Your task to perform on an android device: View the shopping cart on newegg.com. Add "sony triple a" to the cart on newegg.com Image 0: 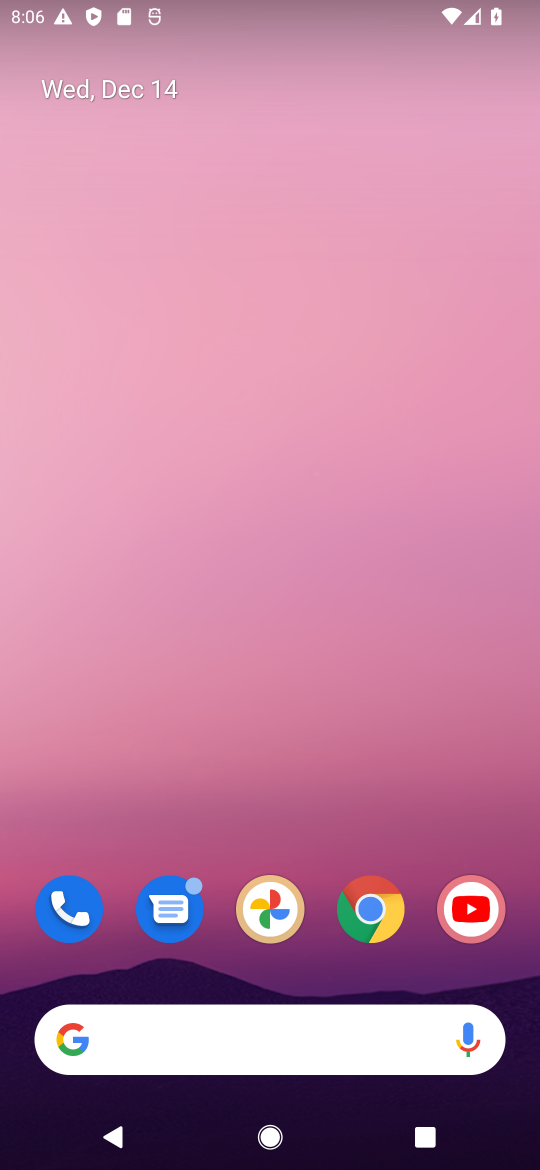
Step 0: click (365, 929)
Your task to perform on an android device: View the shopping cart on newegg.com. Add "sony triple a" to the cart on newegg.com Image 1: 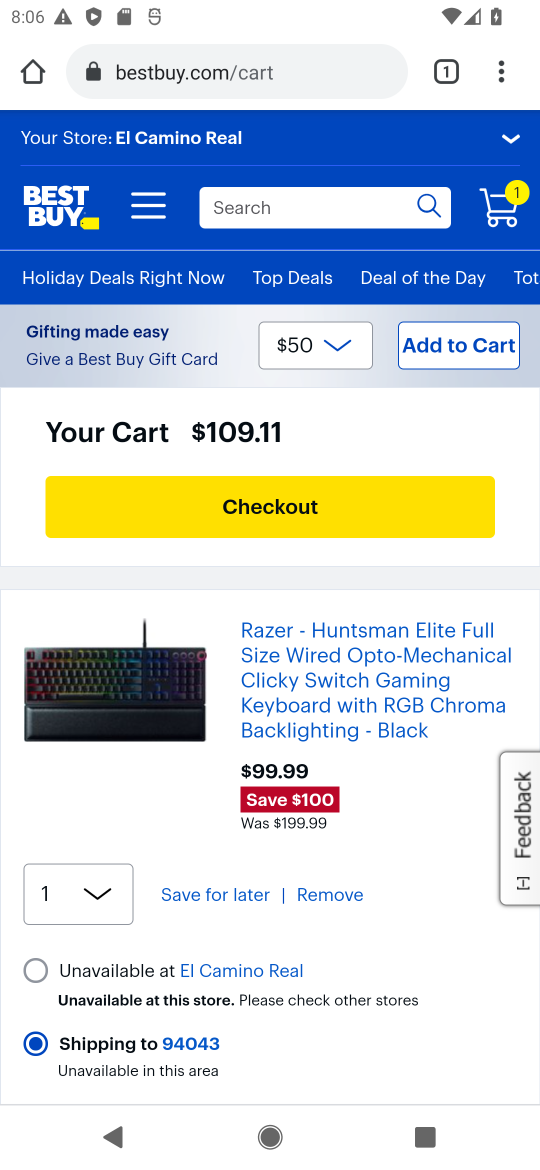
Step 1: click (244, 82)
Your task to perform on an android device: View the shopping cart on newegg.com. Add "sony triple a" to the cart on newegg.com Image 2: 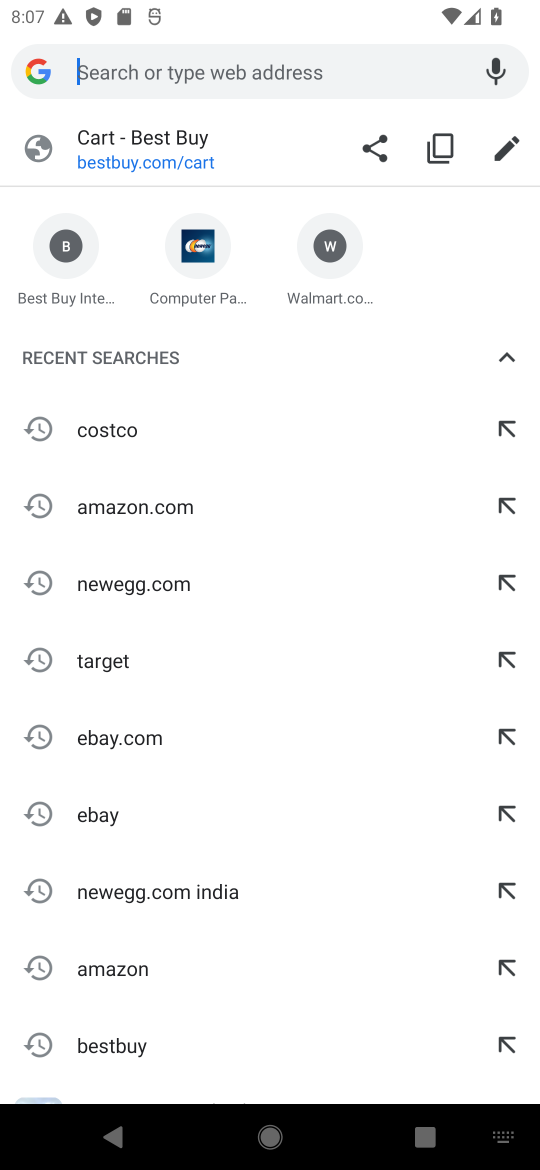
Step 2: type "newegg.com"
Your task to perform on an android device: View the shopping cart on newegg.com. Add "sony triple a" to the cart on newegg.com Image 3: 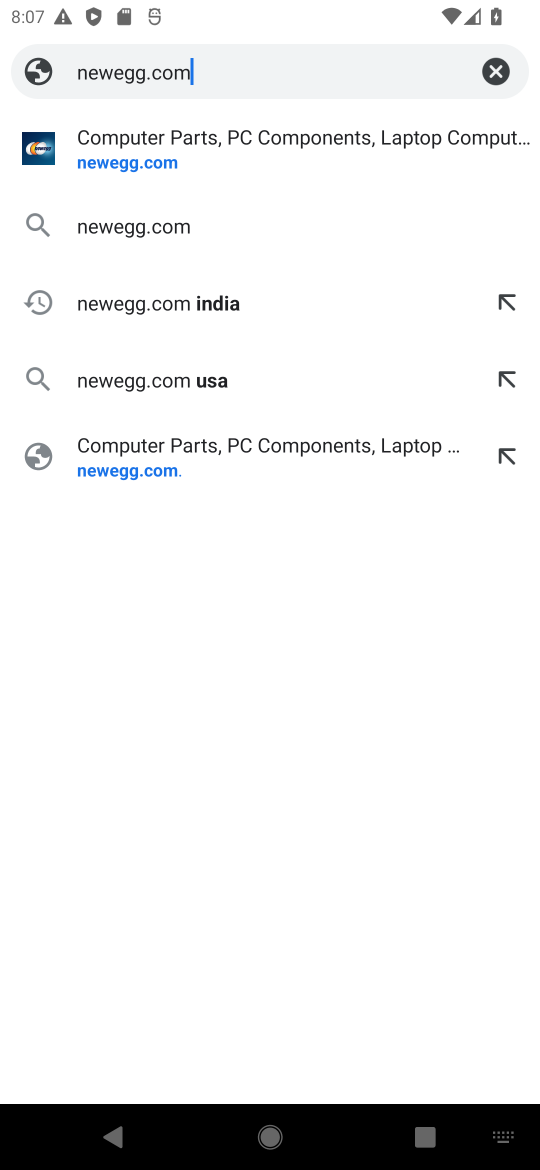
Step 3: press enter
Your task to perform on an android device: View the shopping cart on newegg.com. Add "sony triple a" to the cart on newegg.com Image 4: 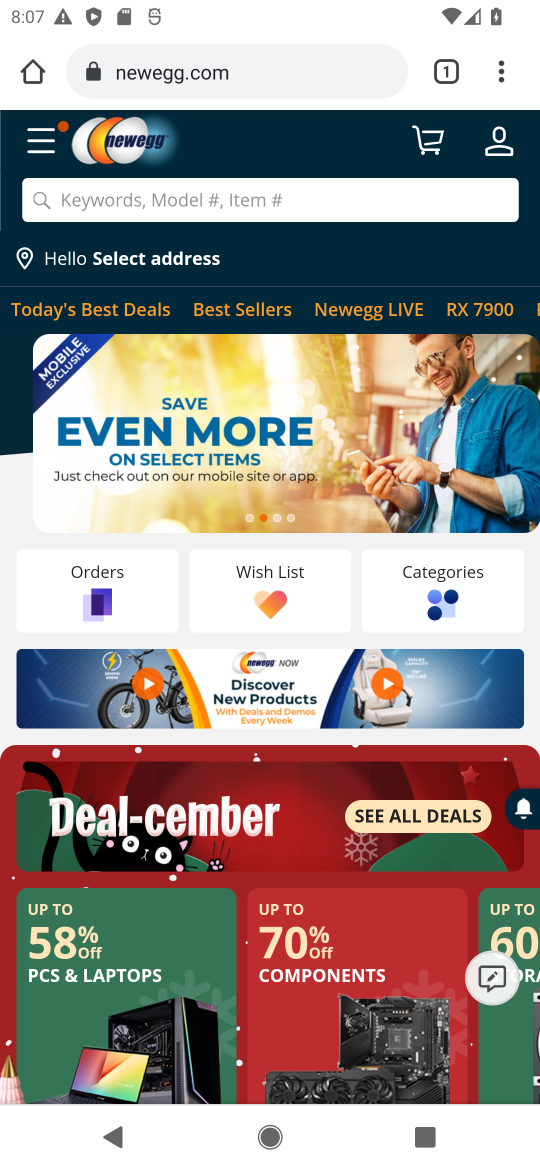
Step 4: click (429, 153)
Your task to perform on an android device: View the shopping cart on newegg.com. Add "sony triple a" to the cart on newegg.com Image 5: 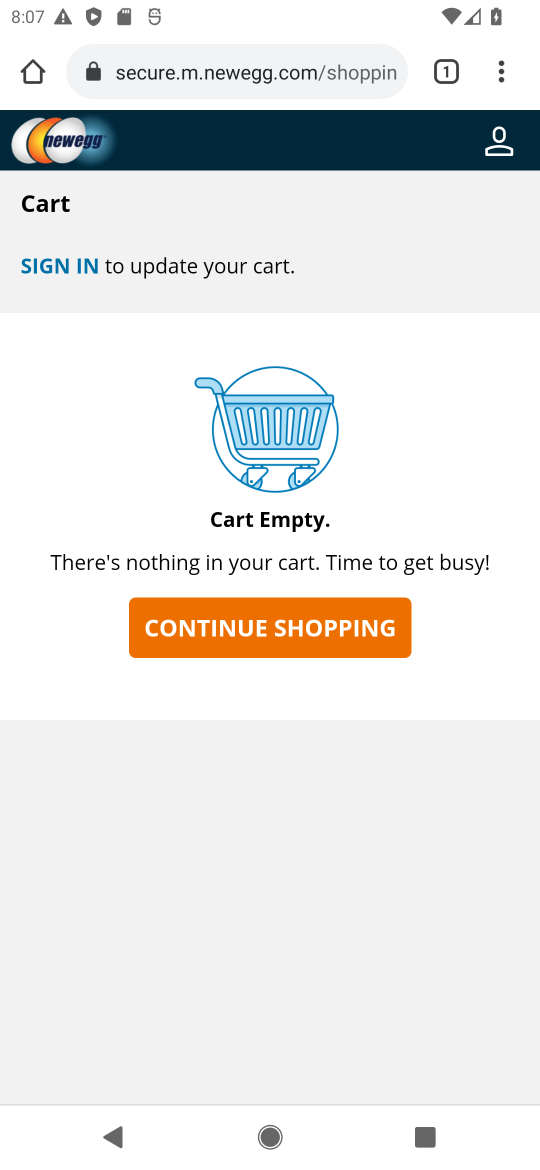
Step 5: click (80, 154)
Your task to perform on an android device: View the shopping cart on newegg.com. Add "sony triple a" to the cart on newegg.com Image 6: 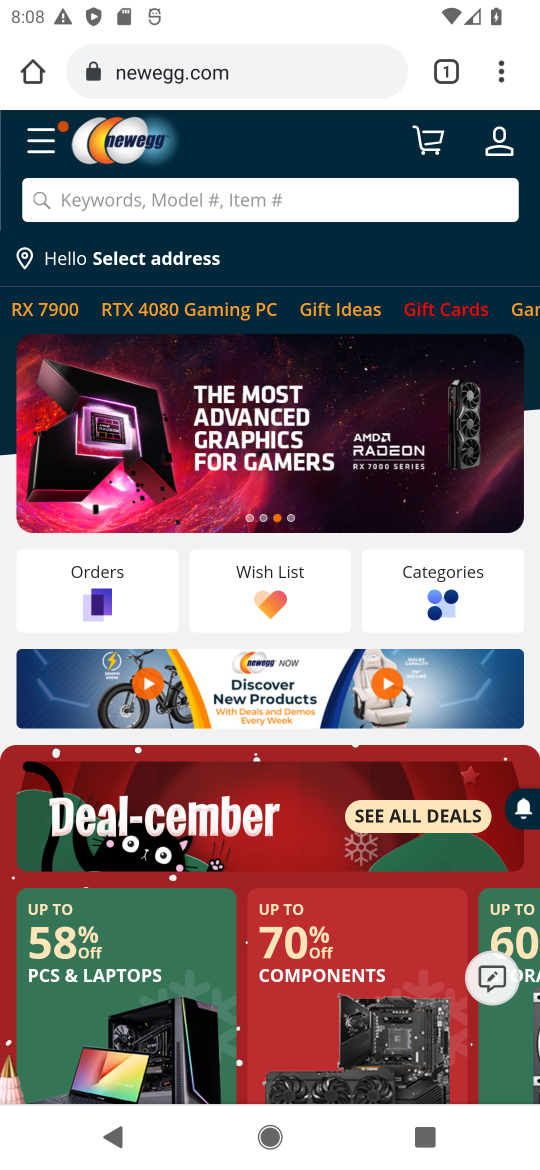
Step 6: click (299, 188)
Your task to perform on an android device: View the shopping cart on newegg.com. Add "sony triple a" to the cart on newegg.com Image 7: 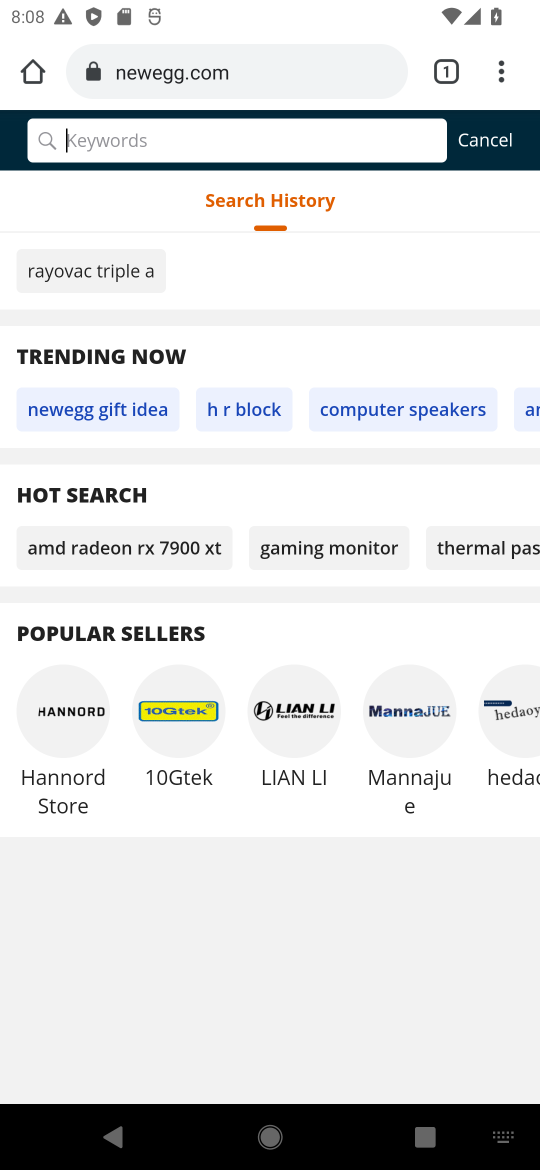
Step 7: type "sony triple a"
Your task to perform on an android device: View the shopping cart on newegg.com. Add "sony triple a" to the cart on newegg.com Image 8: 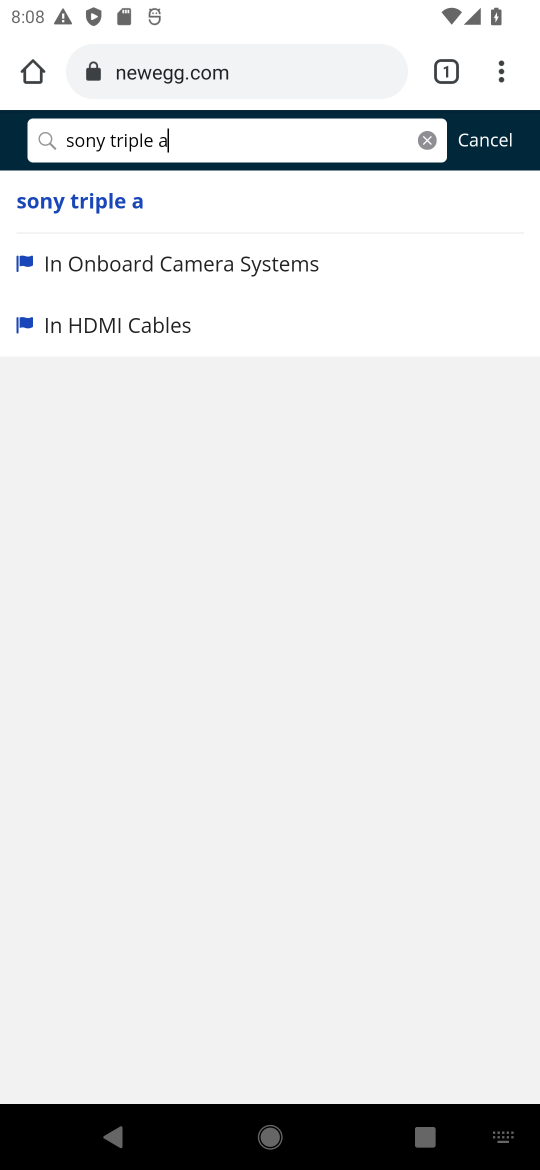
Step 8: press enter
Your task to perform on an android device: View the shopping cart on newegg.com. Add "sony triple a" to the cart on newegg.com Image 9: 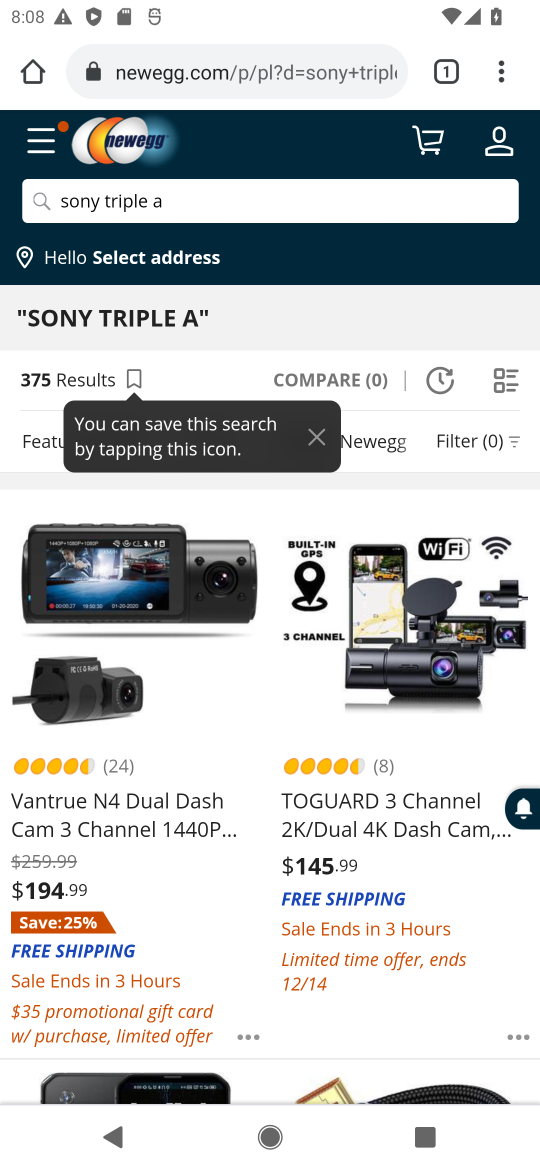
Step 9: task complete